Your task to perform on an android device: toggle show notifications on the lock screen Image 0: 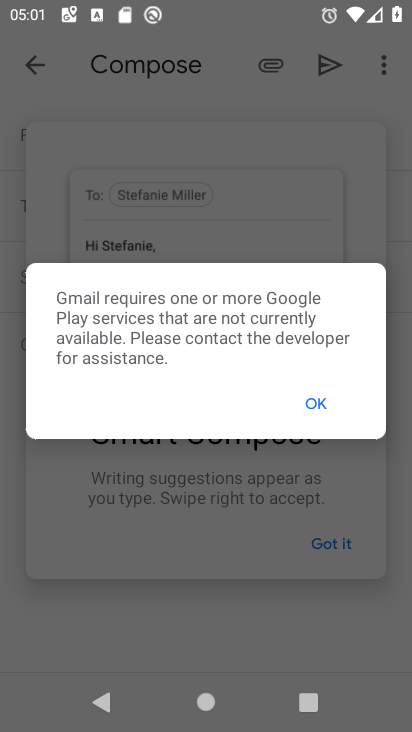
Step 0: press home button
Your task to perform on an android device: toggle show notifications on the lock screen Image 1: 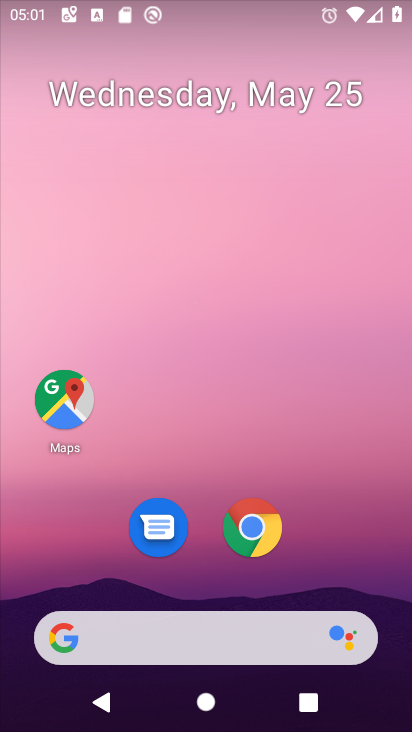
Step 1: drag from (284, 594) to (289, 7)
Your task to perform on an android device: toggle show notifications on the lock screen Image 2: 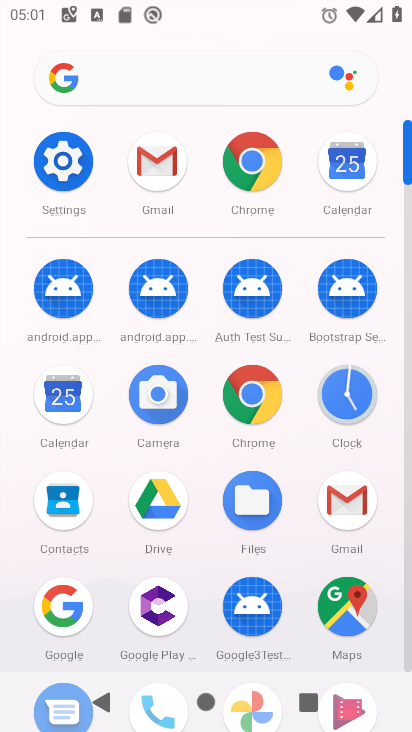
Step 2: click (64, 164)
Your task to perform on an android device: toggle show notifications on the lock screen Image 3: 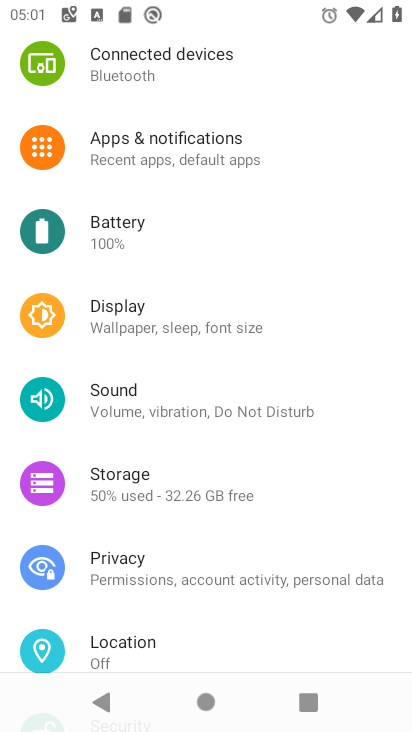
Step 3: press home button
Your task to perform on an android device: toggle show notifications on the lock screen Image 4: 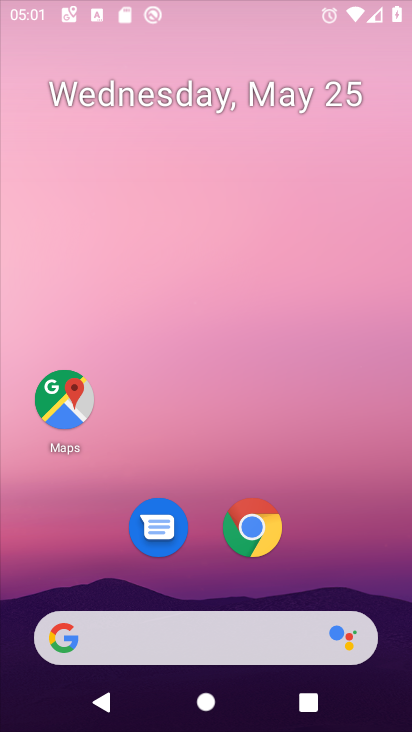
Step 4: drag from (256, 657) to (285, 52)
Your task to perform on an android device: toggle show notifications on the lock screen Image 5: 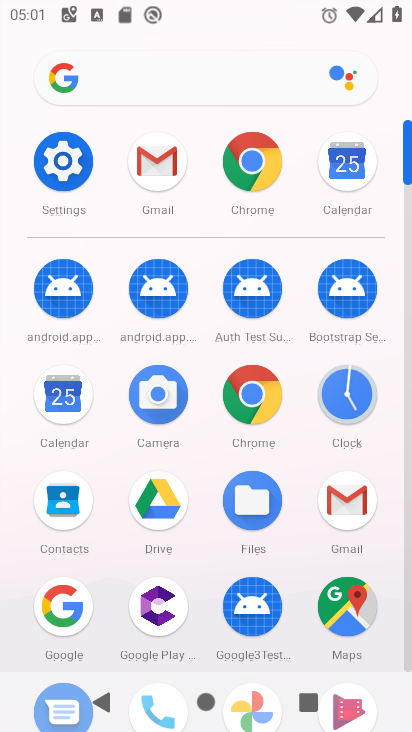
Step 5: click (61, 161)
Your task to perform on an android device: toggle show notifications on the lock screen Image 6: 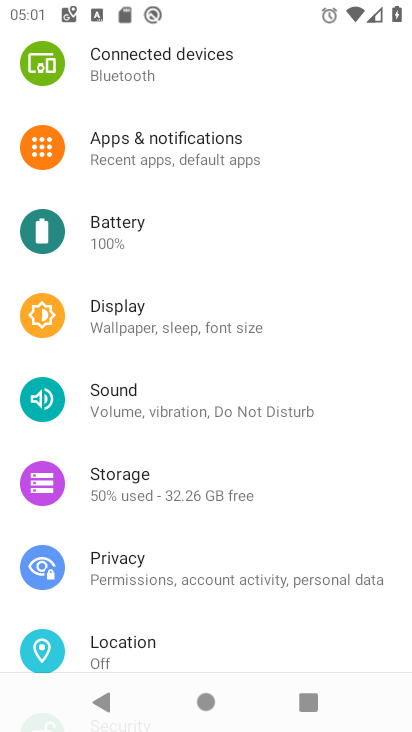
Step 6: click (207, 160)
Your task to perform on an android device: toggle show notifications on the lock screen Image 7: 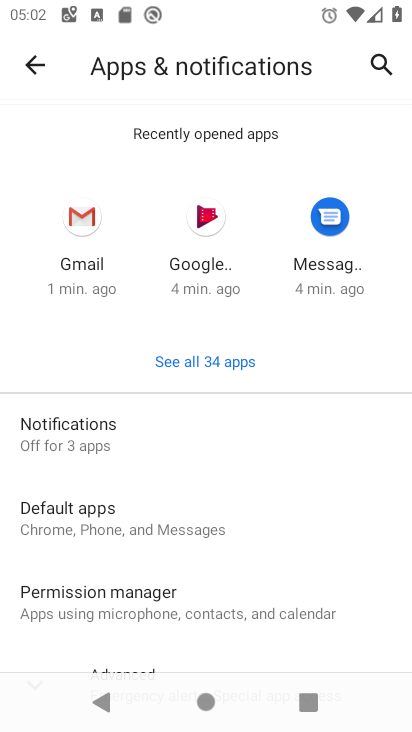
Step 7: drag from (169, 601) to (186, 176)
Your task to perform on an android device: toggle show notifications on the lock screen Image 8: 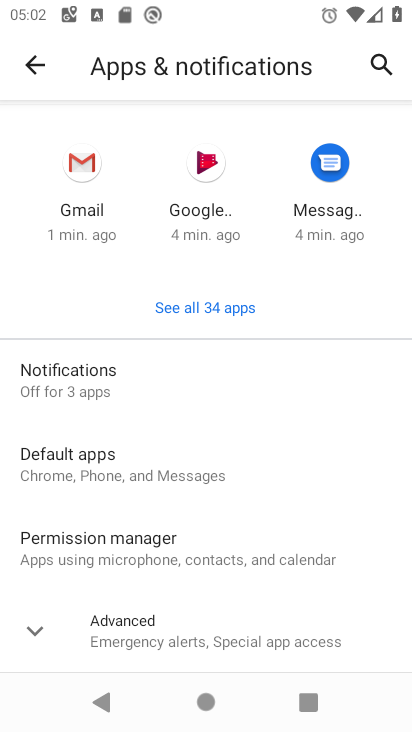
Step 8: click (98, 390)
Your task to perform on an android device: toggle show notifications on the lock screen Image 9: 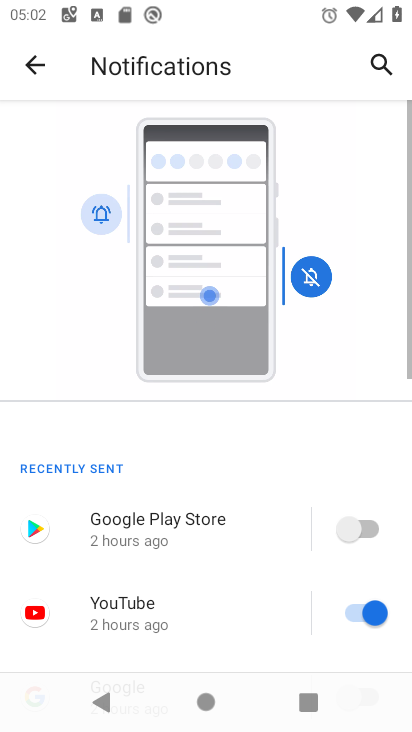
Step 9: drag from (196, 614) to (220, 155)
Your task to perform on an android device: toggle show notifications on the lock screen Image 10: 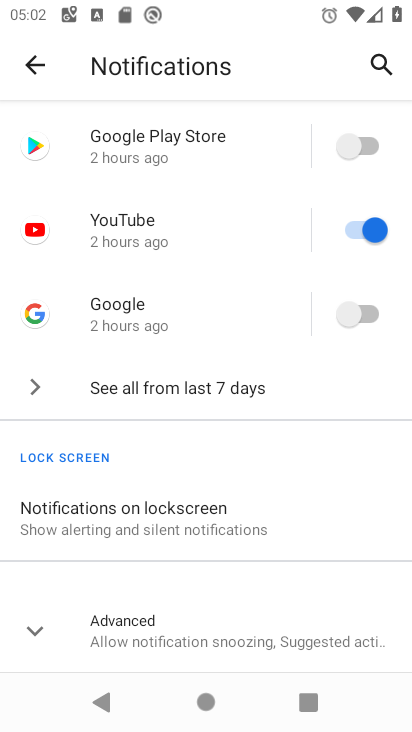
Step 10: click (183, 519)
Your task to perform on an android device: toggle show notifications on the lock screen Image 11: 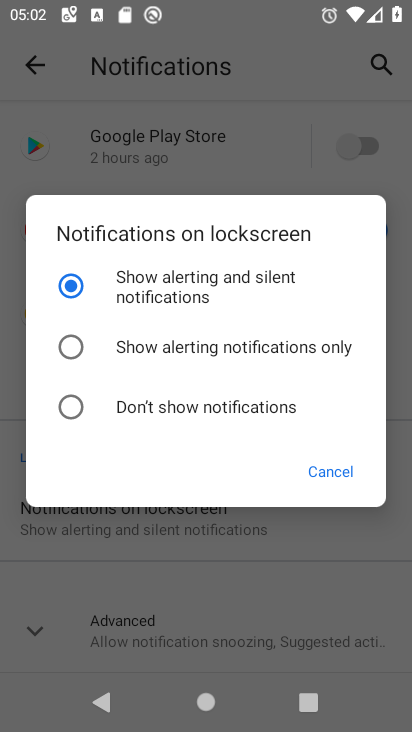
Step 11: click (50, 347)
Your task to perform on an android device: toggle show notifications on the lock screen Image 12: 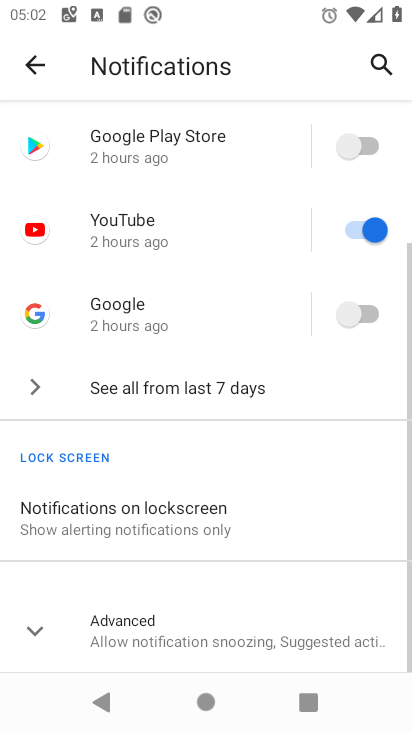
Step 12: task complete